Your task to perform on an android device: turn on improve location accuracy Image 0: 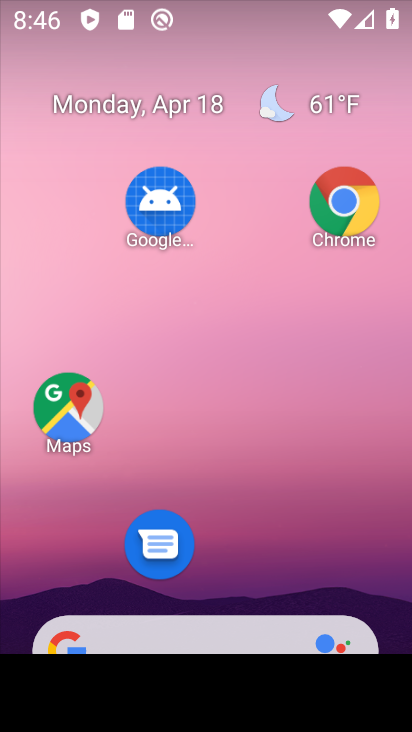
Step 0: drag from (230, 582) to (157, 57)
Your task to perform on an android device: turn on improve location accuracy Image 1: 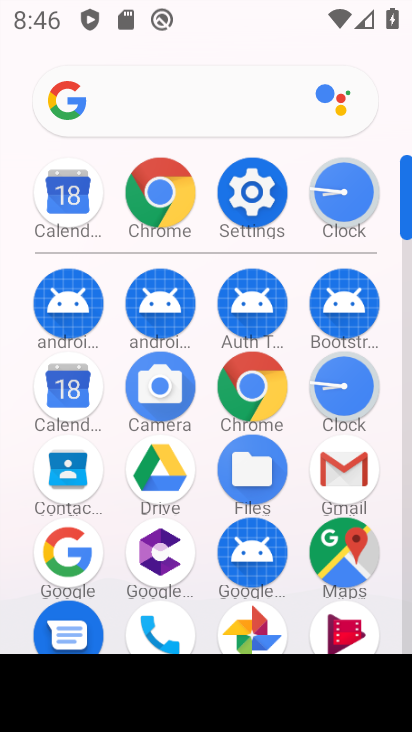
Step 1: click (245, 184)
Your task to perform on an android device: turn on improve location accuracy Image 2: 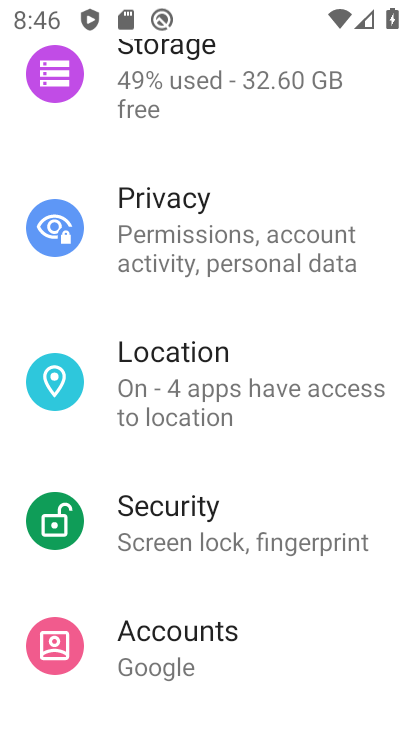
Step 2: click (179, 407)
Your task to perform on an android device: turn on improve location accuracy Image 3: 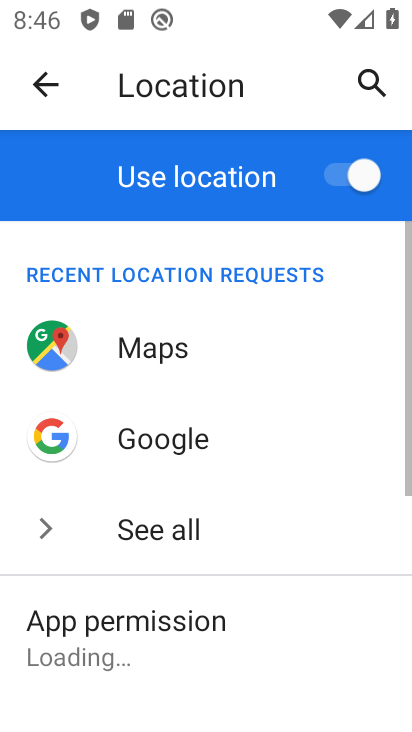
Step 3: drag from (235, 609) to (191, 225)
Your task to perform on an android device: turn on improve location accuracy Image 4: 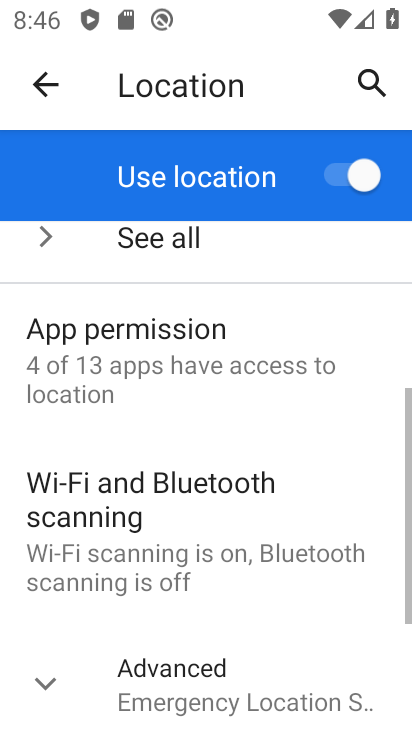
Step 4: click (213, 640)
Your task to perform on an android device: turn on improve location accuracy Image 5: 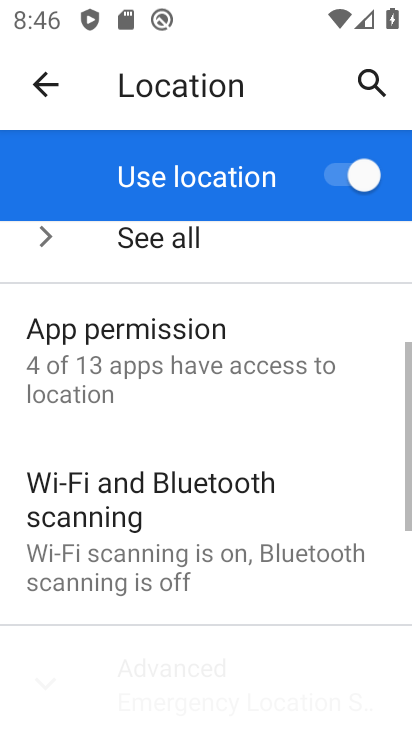
Step 5: drag from (213, 640) to (184, 195)
Your task to perform on an android device: turn on improve location accuracy Image 6: 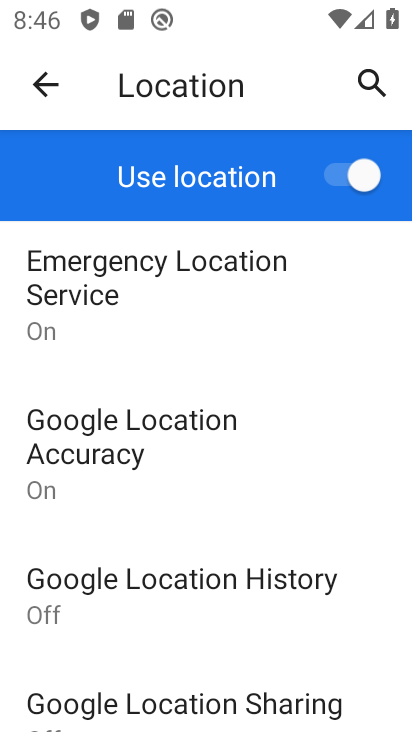
Step 6: click (133, 469)
Your task to perform on an android device: turn on improve location accuracy Image 7: 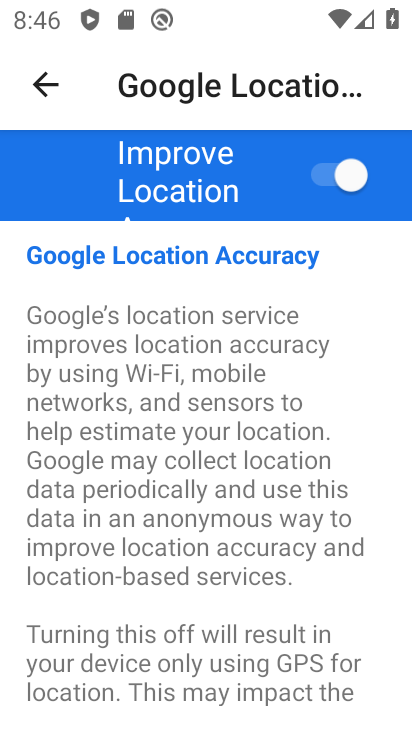
Step 7: task complete